Your task to perform on an android device: Go to Maps Image 0: 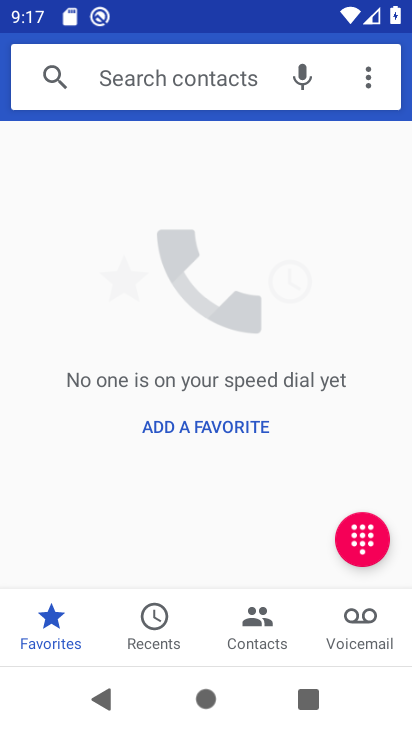
Step 0: press home button
Your task to perform on an android device: Go to Maps Image 1: 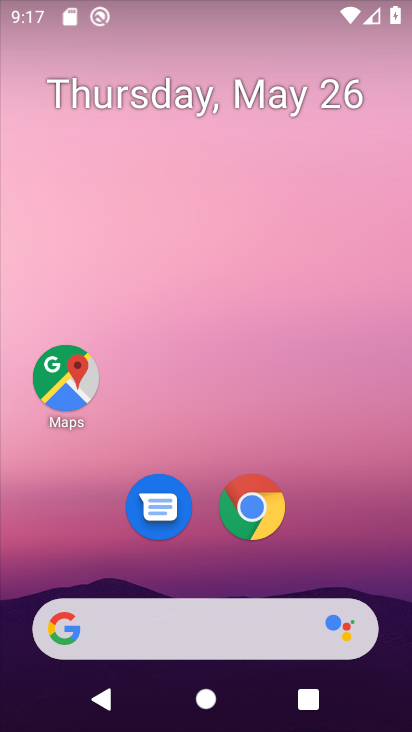
Step 1: drag from (372, 583) to (374, 237)
Your task to perform on an android device: Go to Maps Image 2: 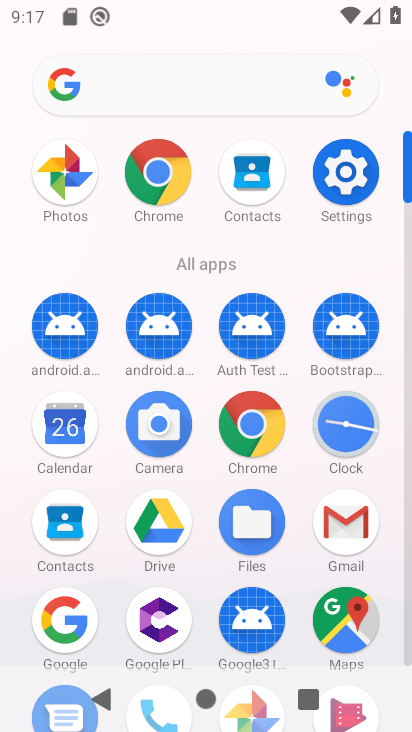
Step 2: click (349, 625)
Your task to perform on an android device: Go to Maps Image 3: 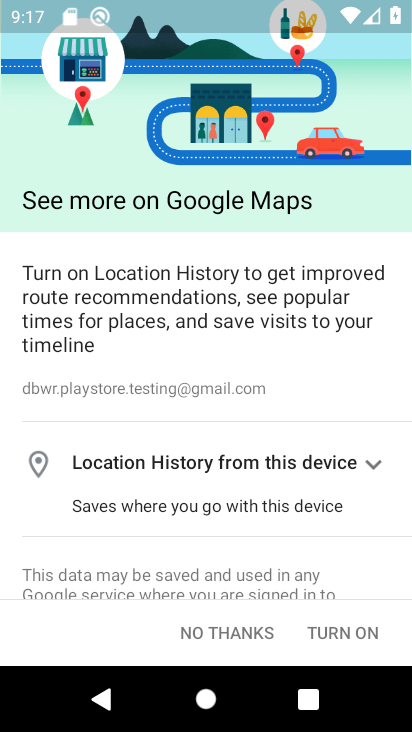
Step 3: task complete